Your task to perform on an android device: add a contact Image 0: 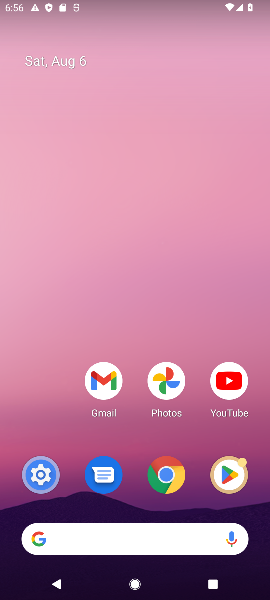
Step 0: drag from (133, 438) to (132, 122)
Your task to perform on an android device: add a contact Image 1: 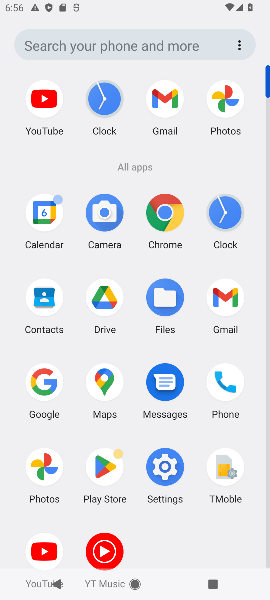
Step 1: click (38, 320)
Your task to perform on an android device: add a contact Image 2: 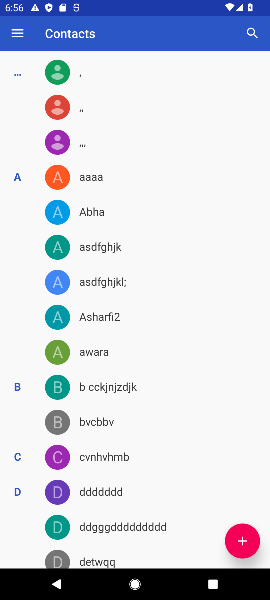
Step 2: click (242, 538)
Your task to perform on an android device: add a contact Image 3: 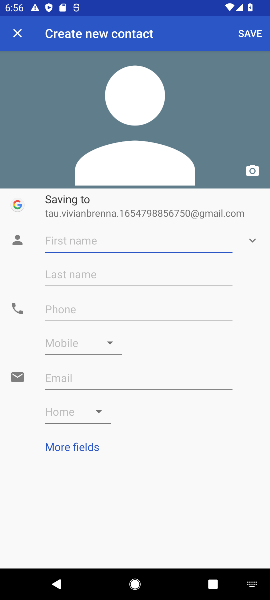
Step 3: type "fbffbf"
Your task to perform on an android device: add a contact Image 4: 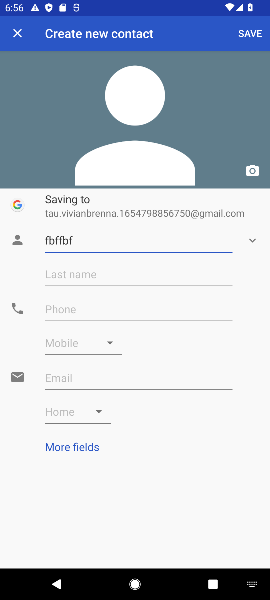
Step 4: click (78, 307)
Your task to perform on an android device: add a contact Image 5: 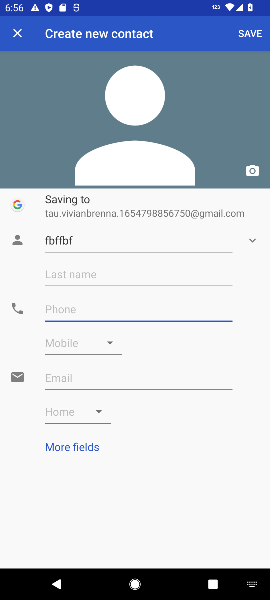
Step 5: type "86756546465"
Your task to perform on an android device: add a contact Image 6: 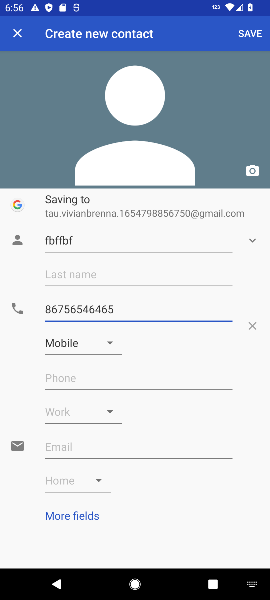
Step 6: click (259, 33)
Your task to perform on an android device: add a contact Image 7: 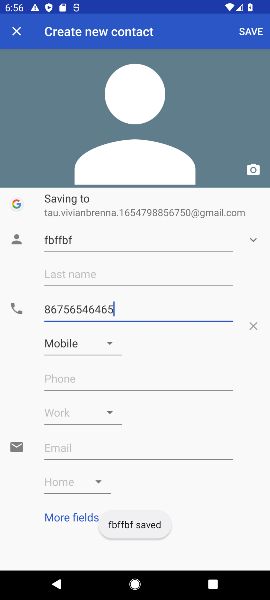
Step 7: task complete